Your task to perform on an android device: Go to Google maps Image 0: 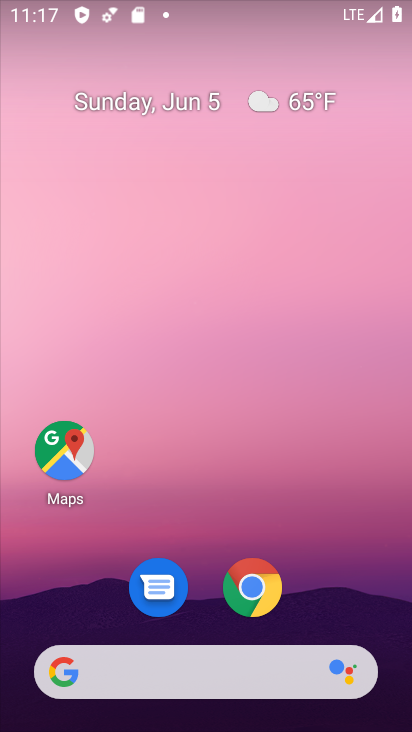
Step 0: click (64, 460)
Your task to perform on an android device: Go to Google maps Image 1: 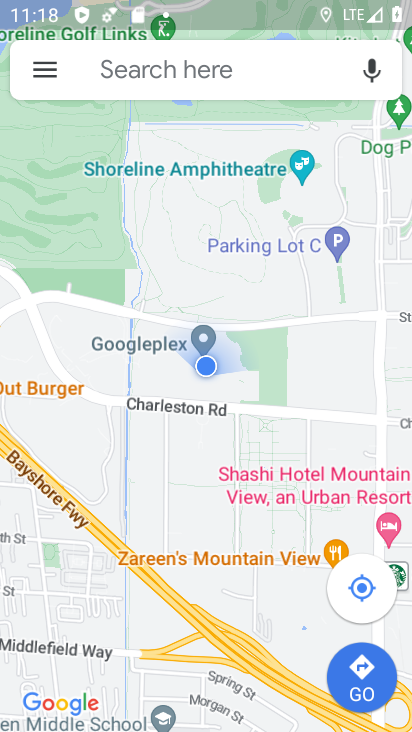
Step 1: task complete